Your task to perform on an android device: What's the weather? Image 0: 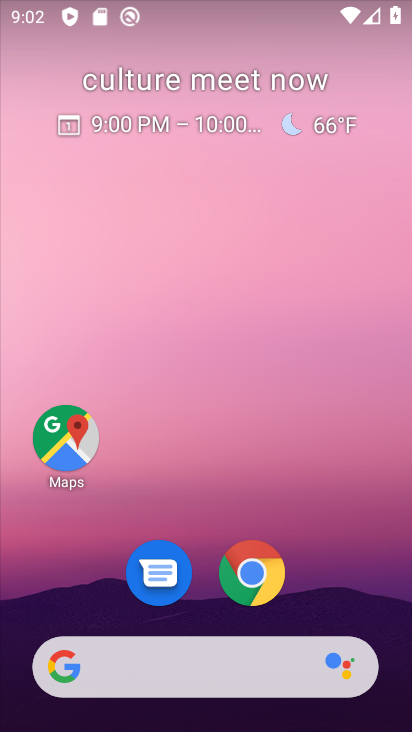
Step 0: click (288, 119)
Your task to perform on an android device: What's the weather? Image 1: 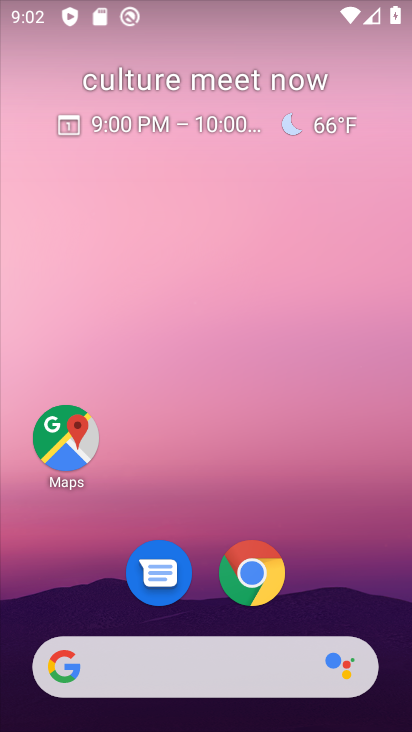
Step 1: click (292, 130)
Your task to perform on an android device: What's the weather? Image 2: 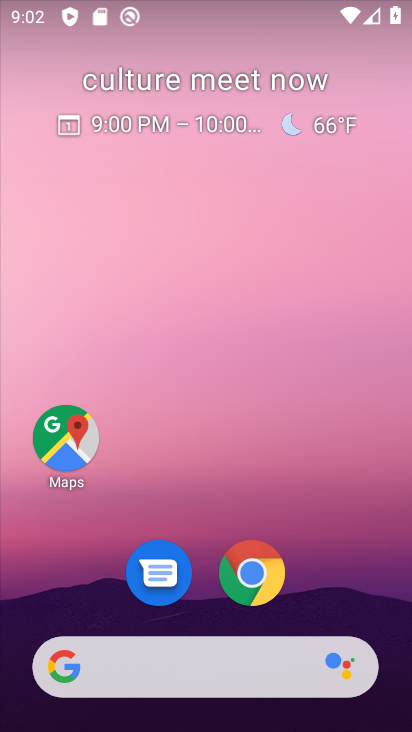
Step 2: click (292, 127)
Your task to perform on an android device: What's the weather? Image 3: 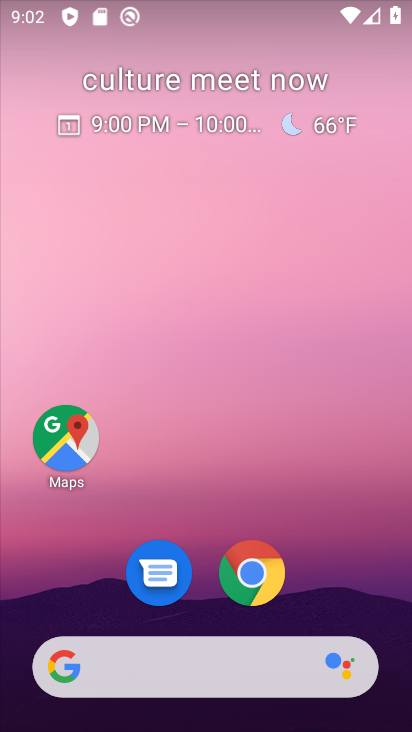
Step 3: click (289, 125)
Your task to perform on an android device: What's the weather? Image 4: 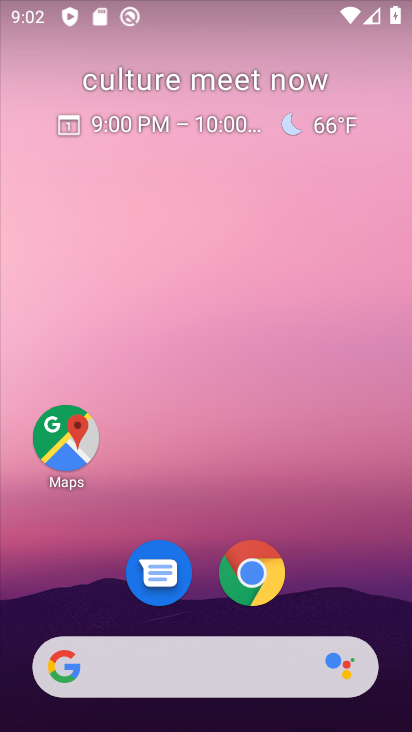
Step 4: click (296, 118)
Your task to perform on an android device: What's the weather? Image 5: 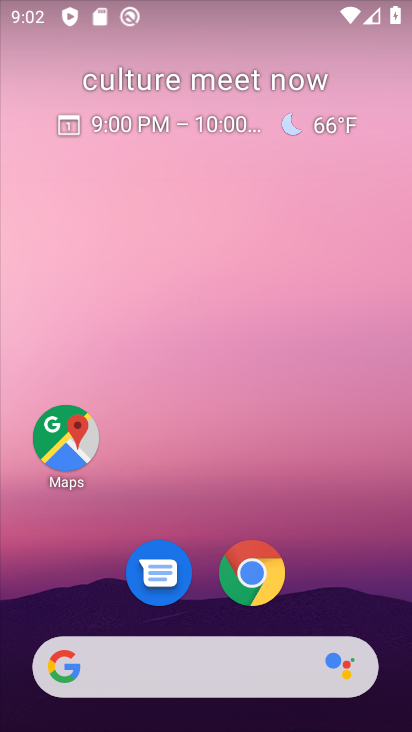
Step 5: click (292, 126)
Your task to perform on an android device: What's the weather? Image 6: 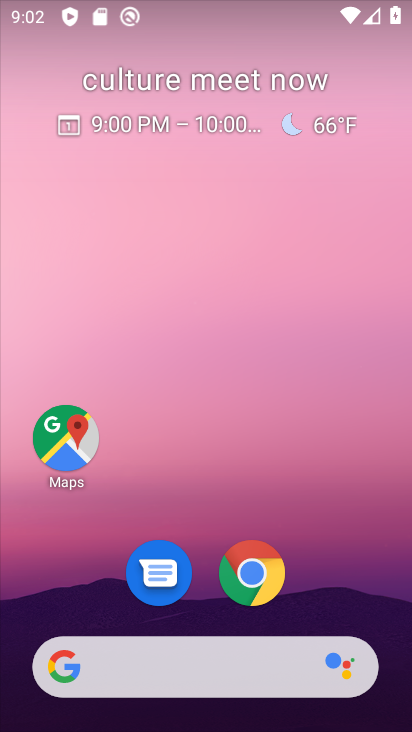
Step 6: click (293, 128)
Your task to perform on an android device: What's the weather? Image 7: 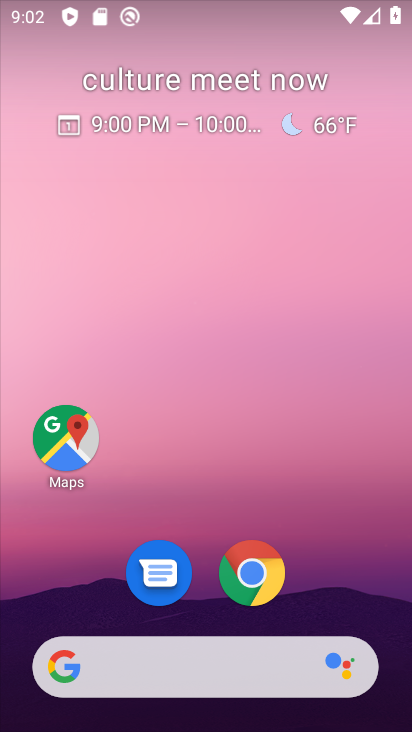
Step 7: click (319, 129)
Your task to perform on an android device: What's the weather? Image 8: 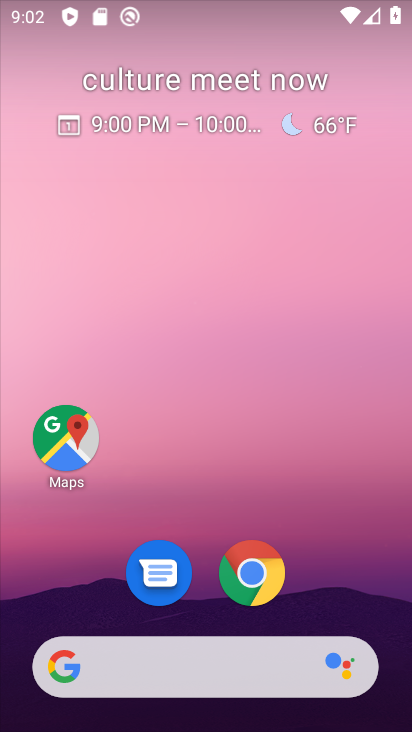
Step 8: click (288, 121)
Your task to perform on an android device: What's the weather? Image 9: 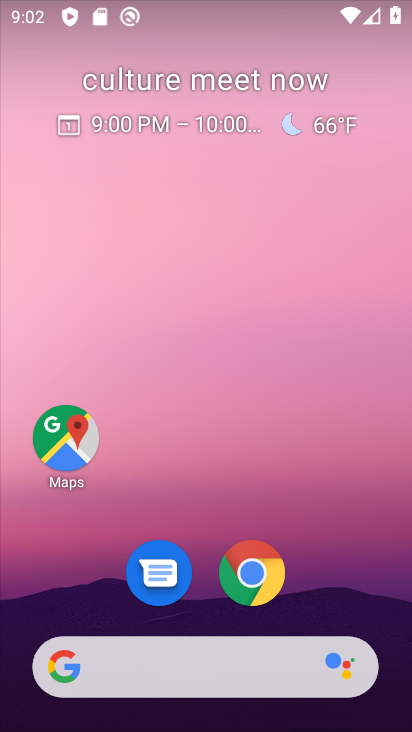
Step 9: click (144, 675)
Your task to perform on an android device: What's the weather? Image 10: 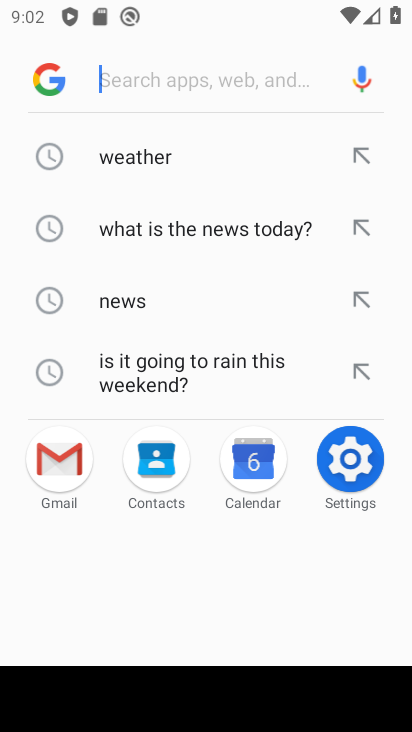
Step 10: click (128, 156)
Your task to perform on an android device: What's the weather? Image 11: 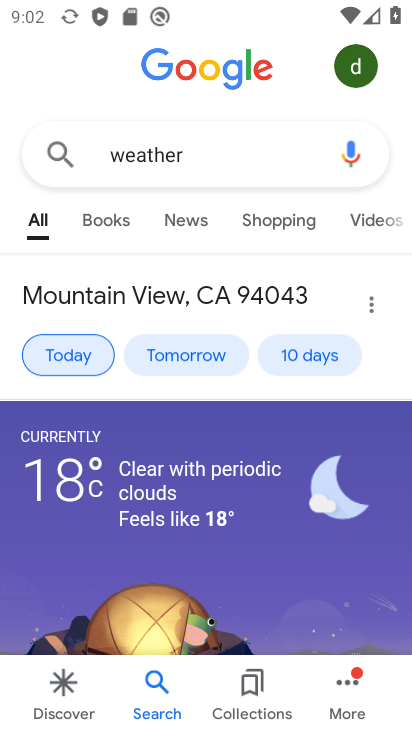
Step 11: task complete